Your task to perform on an android device: move an email to a new category in the gmail app Image 0: 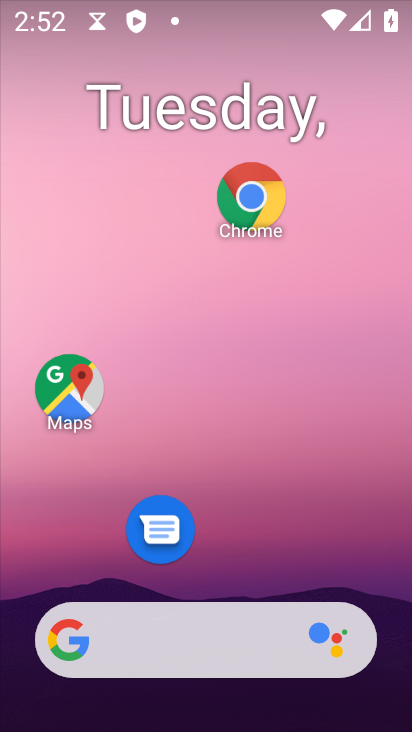
Step 0: drag from (213, 591) to (212, 220)
Your task to perform on an android device: move an email to a new category in the gmail app Image 1: 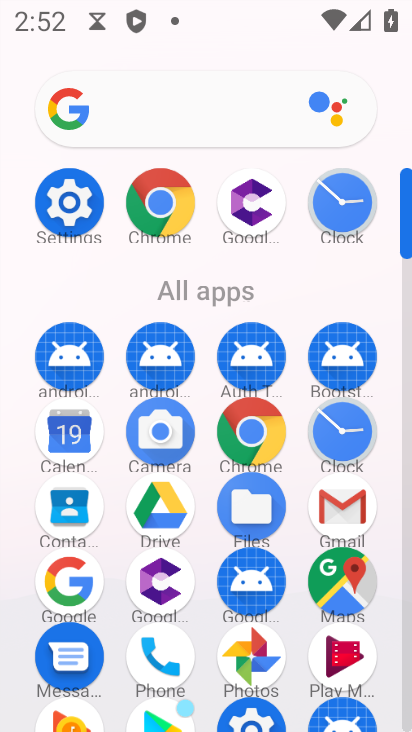
Step 1: click (343, 507)
Your task to perform on an android device: move an email to a new category in the gmail app Image 2: 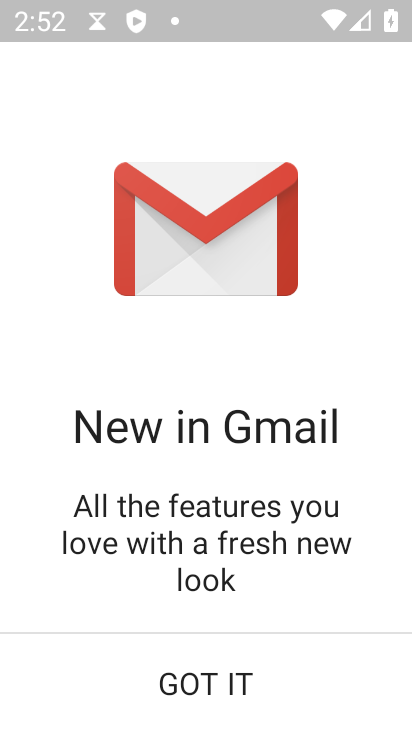
Step 2: click (195, 686)
Your task to perform on an android device: move an email to a new category in the gmail app Image 3: 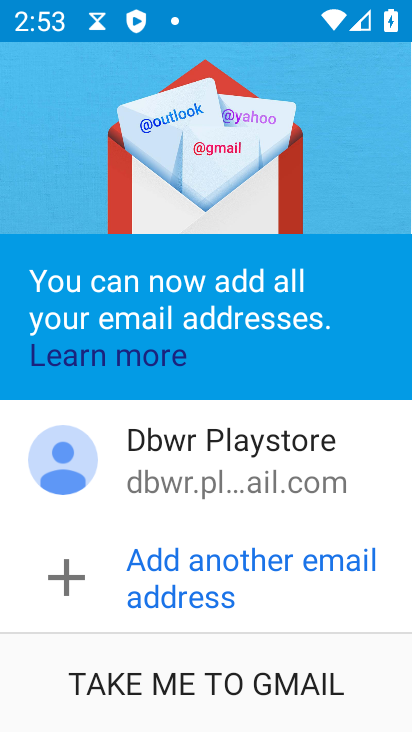
Step 3: click (210, 677)
Your task to perform on an android device: move an email to a new category in the gmail app Image 4: 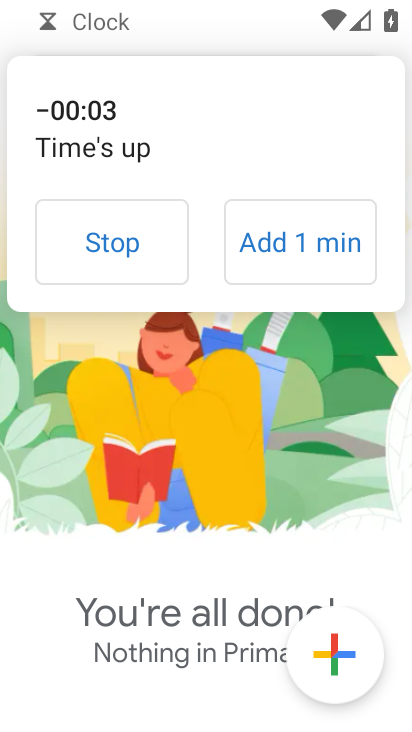
Step 4: click (125, 250)
Your task to perform on an android device: move an email to a new category in the gmail app Image 5: 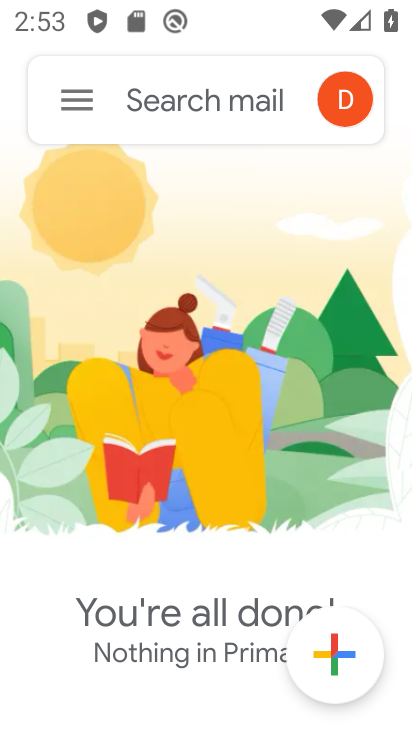
Step 5: task complete